Your task to perform on an android device: toggle pop-ups in chrome Image 0: 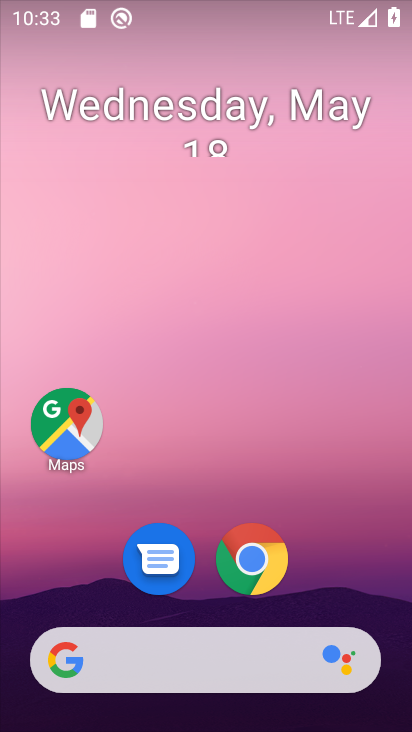
Step 0: click (252, 550)
Your task to perform on an android device: toggle pop-ups in chrome Image 1: 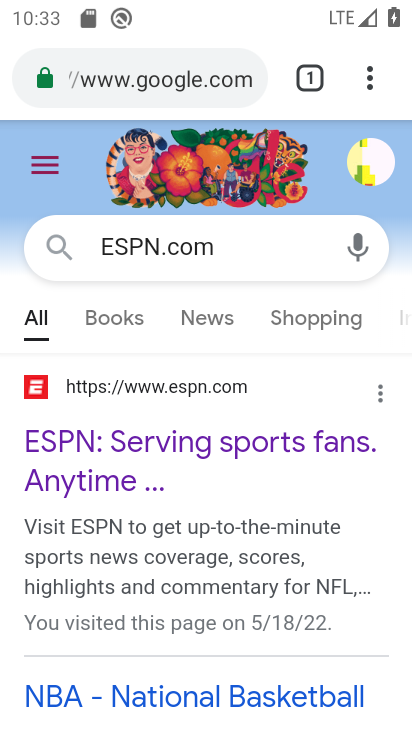
Step 1: click (368, 85)
Your task to perform on an android device: toggle pop-ups in chrome Image 2: 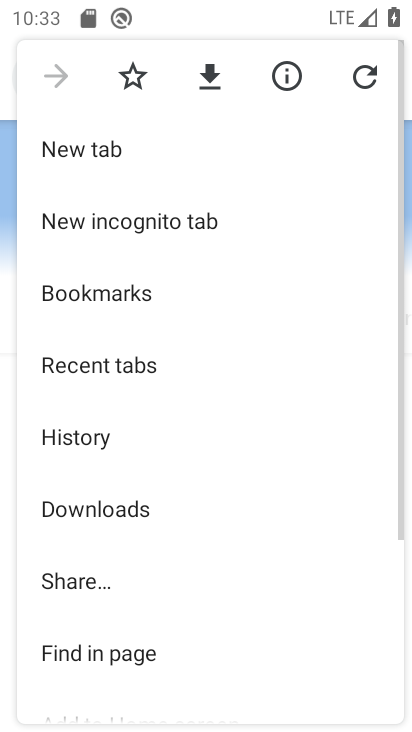
Step 2: drag from (143, 587) to (183, 268)
Your task to perform on an android device: toggle pop-ups in chrome Image 3: 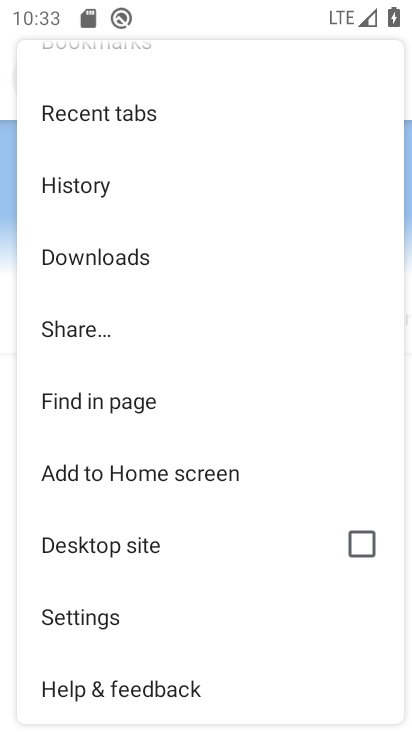
Step 3: click (92, 621)
Your task to perform on an android device: toggle pop-ups in chrome Image 4: 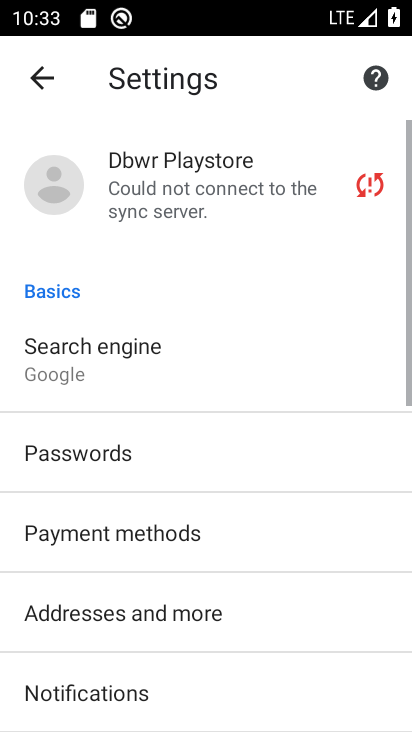
Step 4: drag from (141, 565) to (171, 305)
Your task to perform on an android device: toggle pop-ups in chrome Image 5: 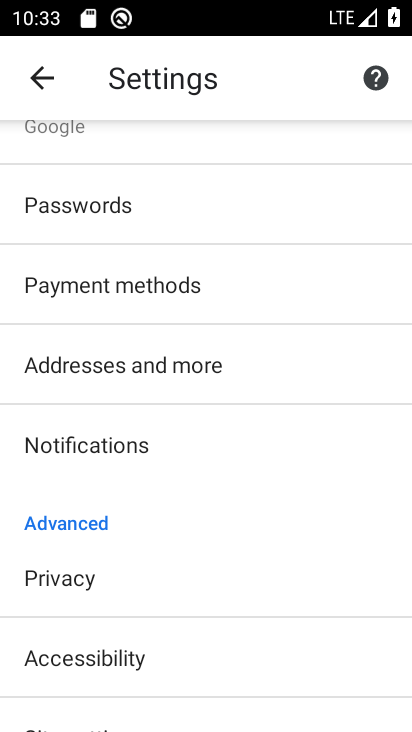
Step 5: drag from (107, 610) to (151, 356)
Your task to perform on an android device: toggle pop-ups in chrome Image 6: 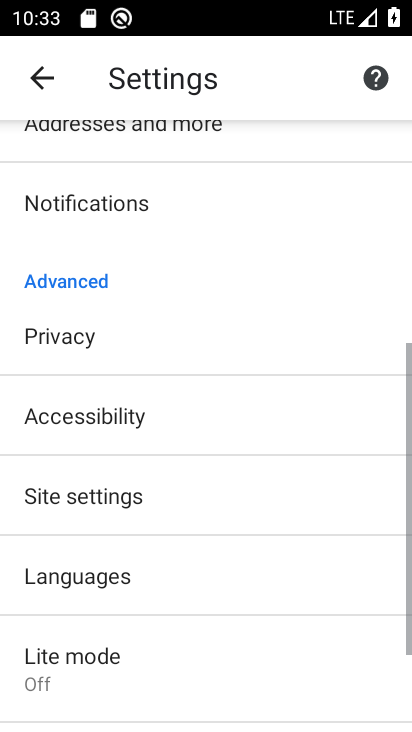
Step 6: click (107, 511)
Your task to perform on an android device: toggle pop-ups in chrome Image 7: 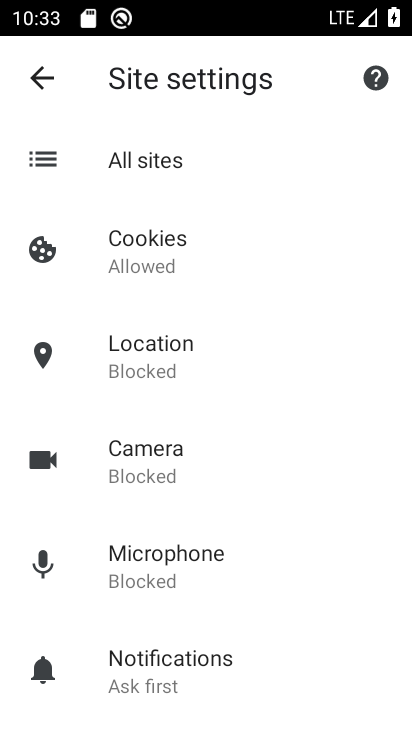
Step 7: drag from (142, 529) to (177, 180)
Your task to perform on an android device: toggle pop-ups in chrome Image 8: 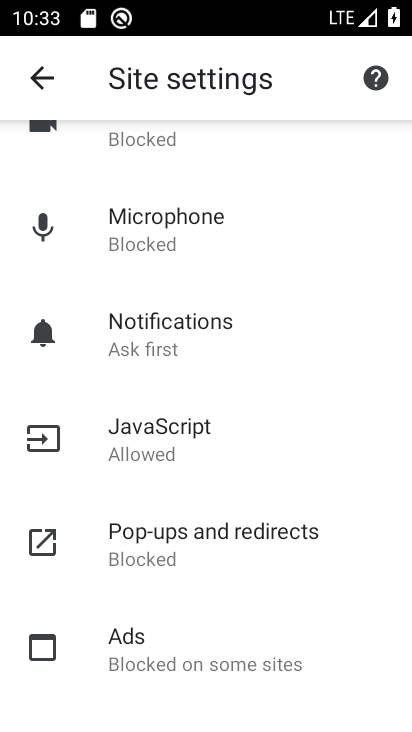
Step 8: click (149, 551)
Your task to perform on an android device: toggle pop-ups in chrome Image 9: 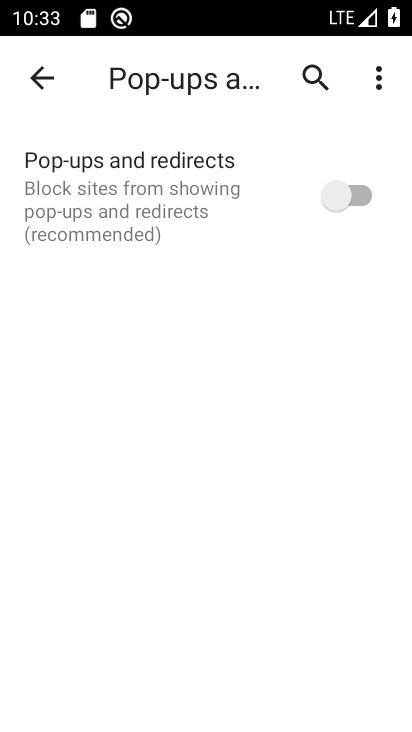
Step 9: click (338, 182)
Your task to perform on an android device: toggle pop-ups in chrome Image 10: 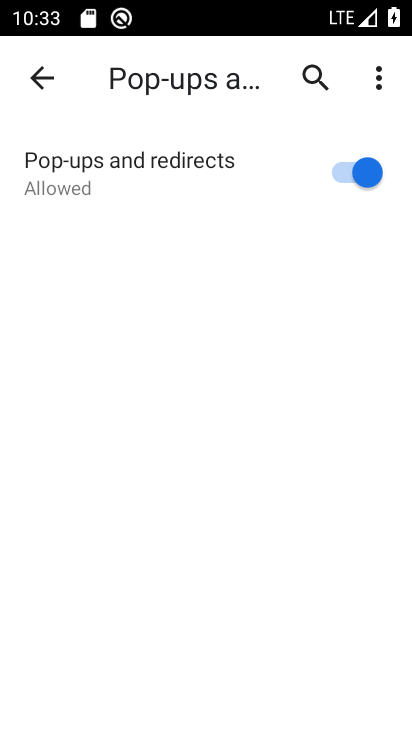
Step 10: task complete